Your task to perform on an android device: Is it going to rain this weekend? Image 0: 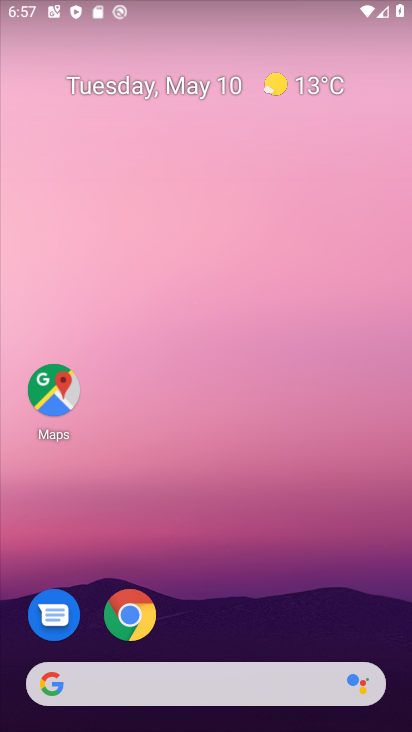
Step 0: drag from (277, 570) to (244, 208)
Your task to perform on an android device: Is it going to rain this weekend? Image 1: 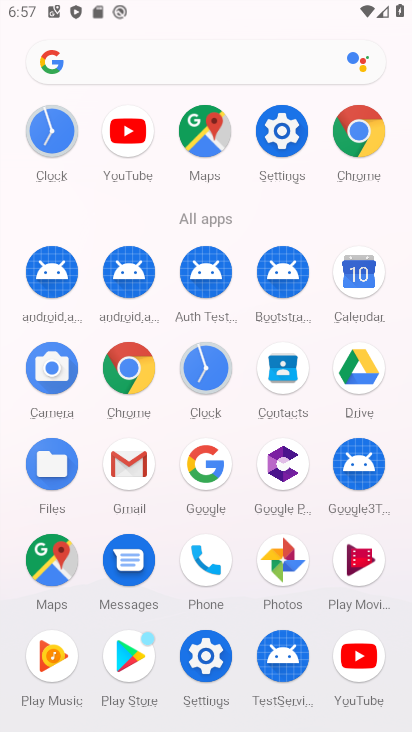
Step 1: press home button
Your task to perform on an android device: Is it going to rain this weekend? Image 2: 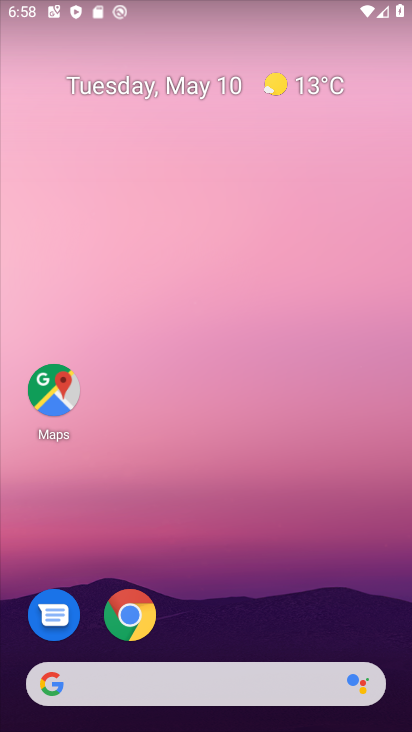
Step 2: click (263, 79)
Your task to perform on an android device: Is it going to rain this weekend? Image 3: 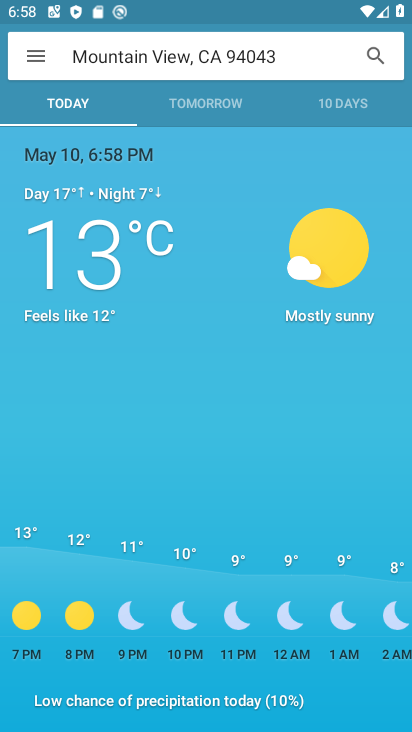
Step 3: click (371, 109)
Your task to perform on an android device: Is it going to rain this weekend? Image 4: 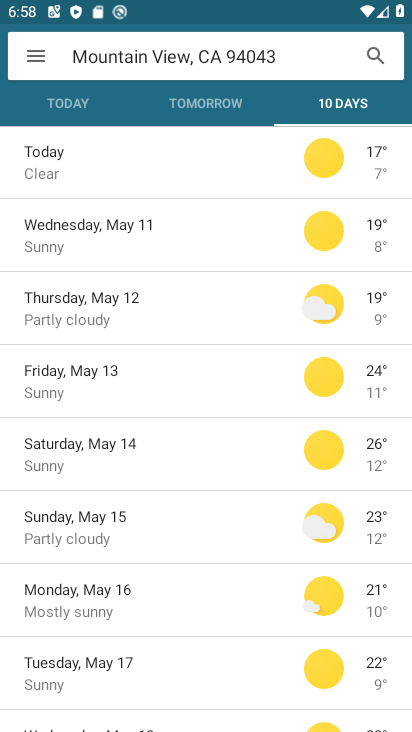
Step 4: task complete